Your task to perform on an android device: stop showing notifications on the lock screen Image 0: 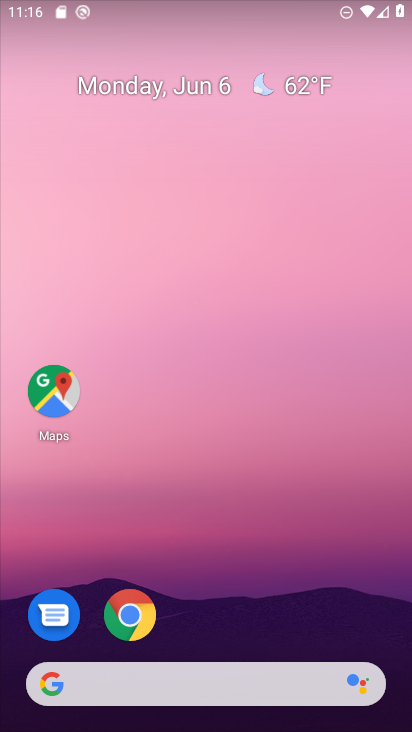
Step 0: drag from (232, 678) to (262, 59)
Your task to perform on an android device: stop showing notifications on the lock screen Image 1: 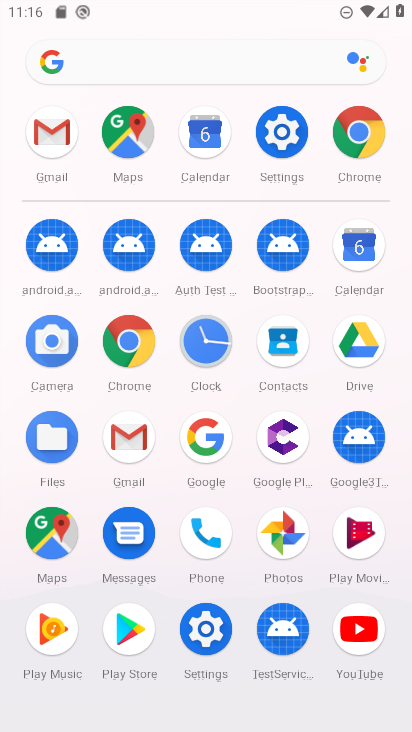
Step 1: click (294, 121)
Your task to perform on an android device: stop showing notifications on the lock screen Image 2: 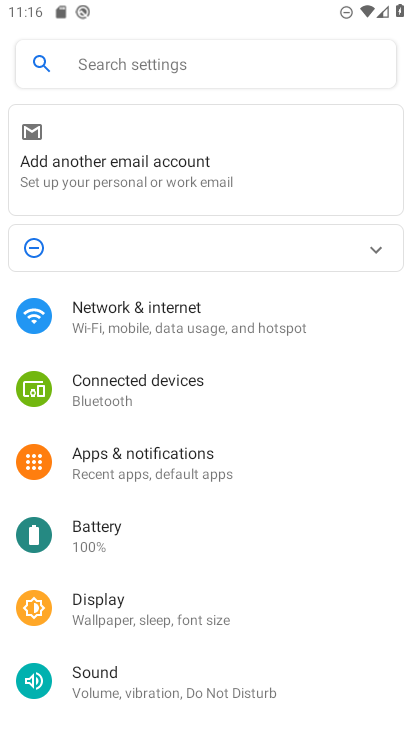
Step 2: click (212, 466)
Your task to perform on an android device: stop showing notifications on the lock screen Image 3: 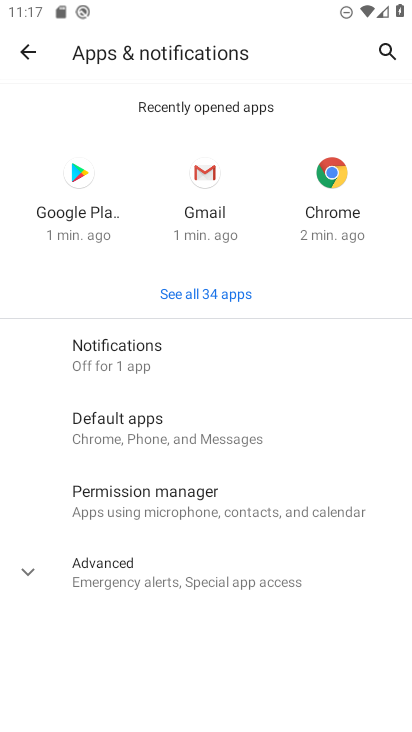
Step 3: click (166, 348)
Your task to perform on an android device: stop showing notifications on the lock screen Image 4: 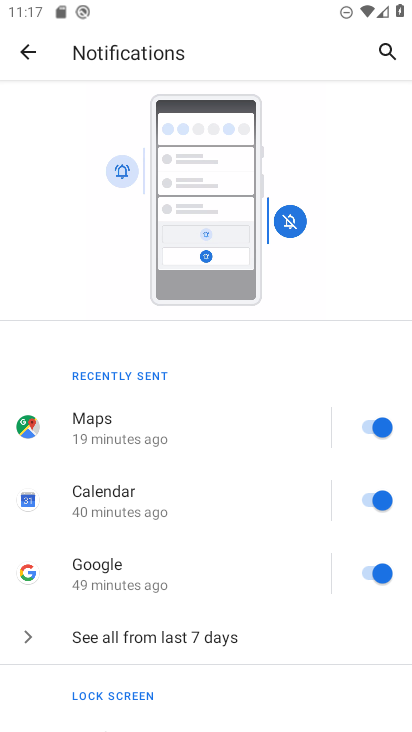
Step 4: drag from (180, 626) to (182, 139)
Your task to perform on an android device: stop showing notifications on the lock screen Image 5: 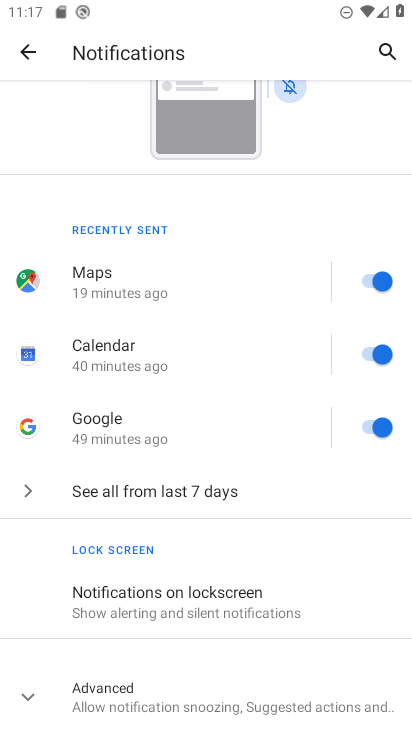
Step 5: click (204, 586)
Your task to perform on an android device: stop showing notifications on the lock screen Image 6: 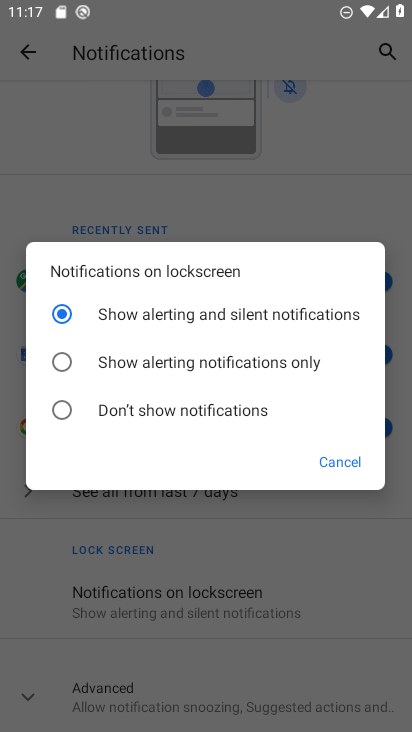
Step 6: click (136, 413)
Your task to perform on an android device: stop showing notifications on the lock screen Image 7: 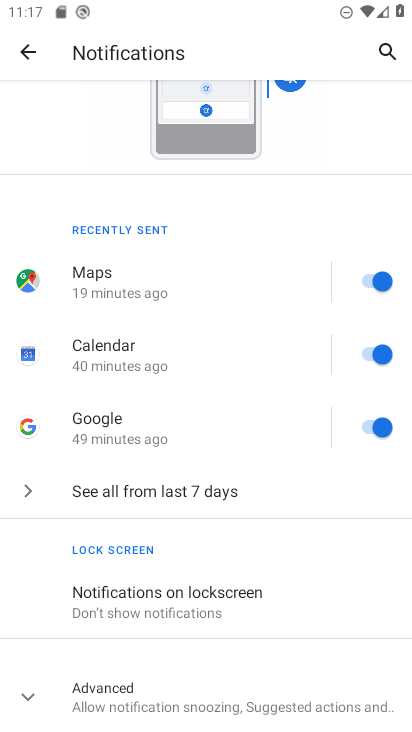
Step 7: task complete